Your task to perform on an android device: What's the weather going to be this weekend? Image 0: 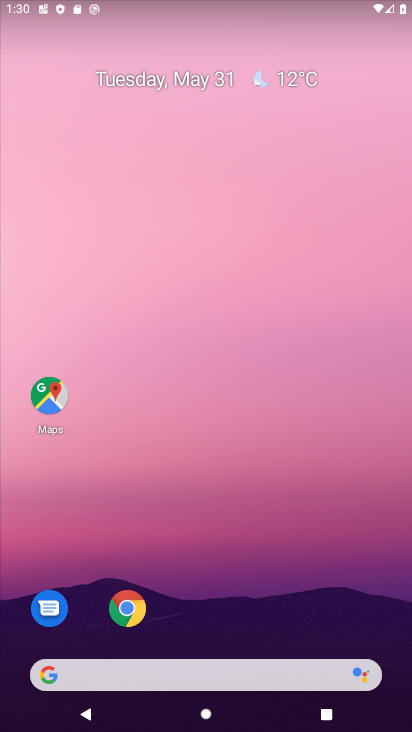
Step 0: drag from (280, 590) to (292, 265)
Your task to perform on an android device: What's the weather going to be this weekend? Image 1: 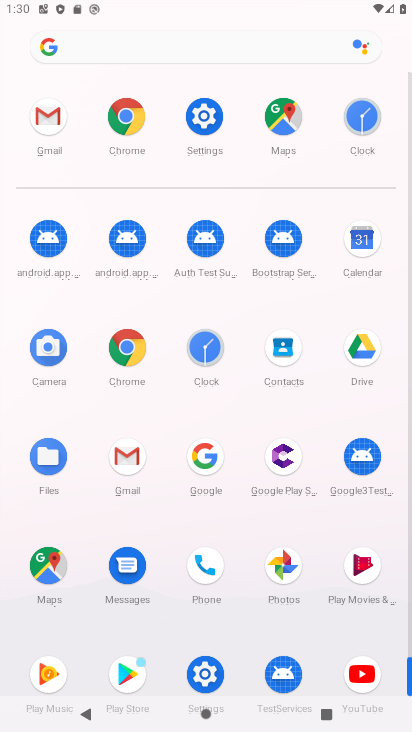
Step 1: click (121, 120)
Your task to perform on an android device: What's the weather going to be this weekend? Image 2: 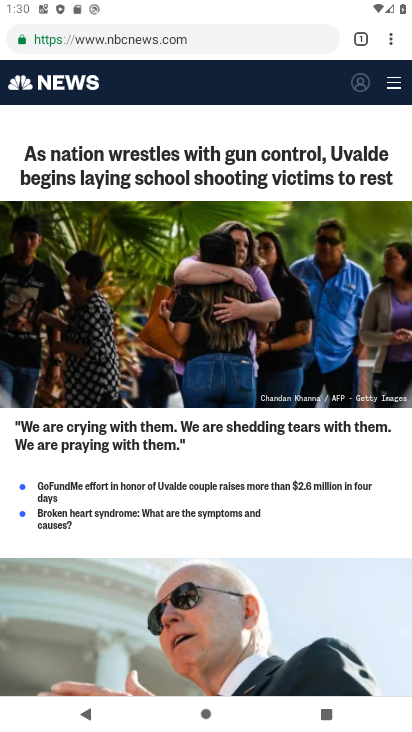
Step 2: click (195, 33)
Your task to perform on an android device: What's the weather going to be this weekend? Image 3: 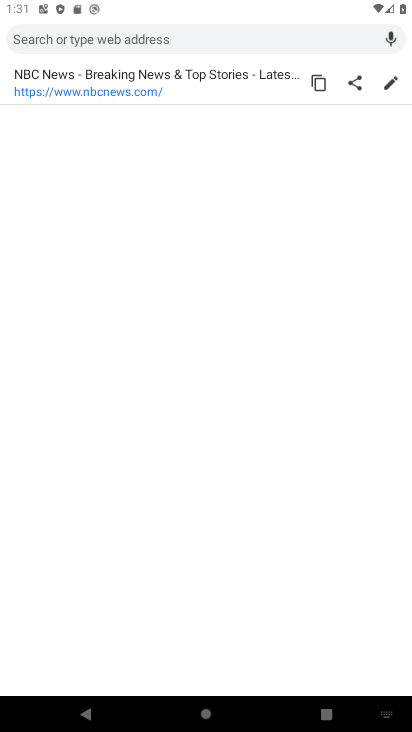
Step 3: type "what's the weather going to be this weekend "
Your task to perform on an android device: What's the weather going to be this weekend? Image 4: 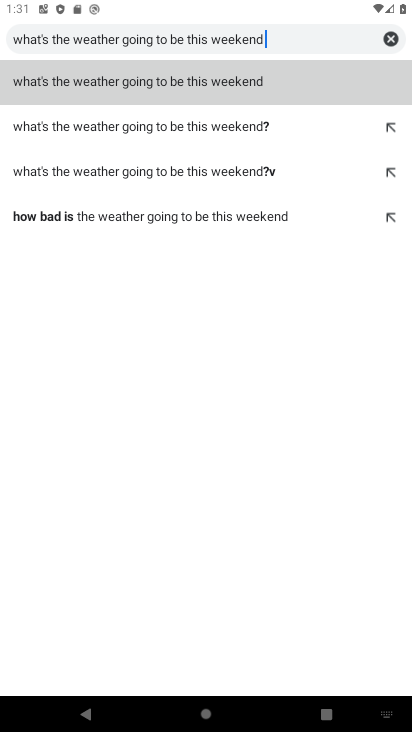
Step 4: click (213, 77)
Your task to perform on an android device: What's the weather going to be this weekend? Image 5: 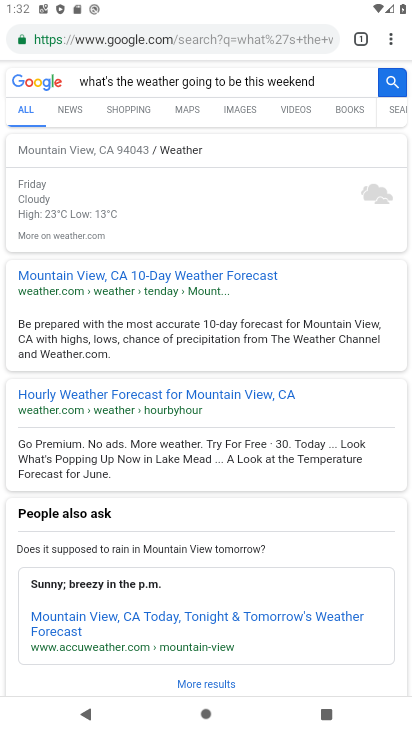
Step 5: task complete